Your task to perform on an android device: See recent photos Image 0: 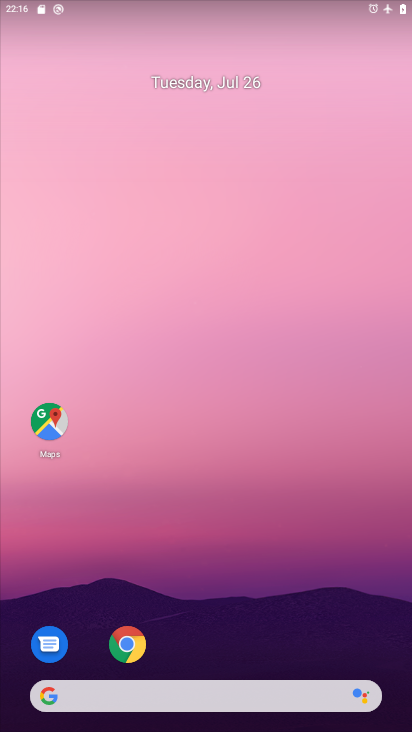
Step 0: drag from (180, 654) to (178, 242)
Your task to perform on an android device: See recent photos Image 1: 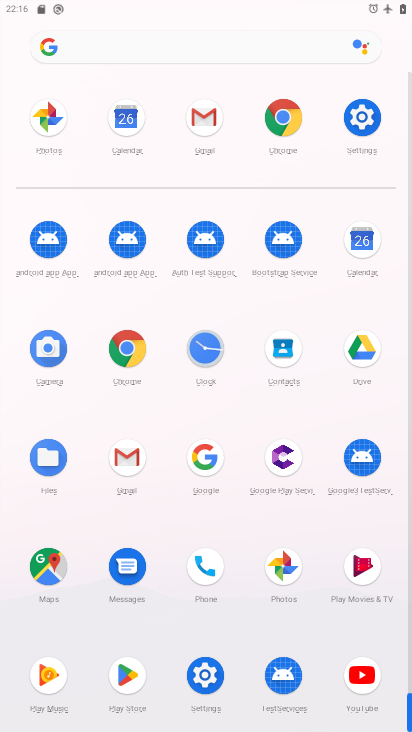
Step 1: click (290, 562)
Your task to perform on an android device: See recent photos Image 2: 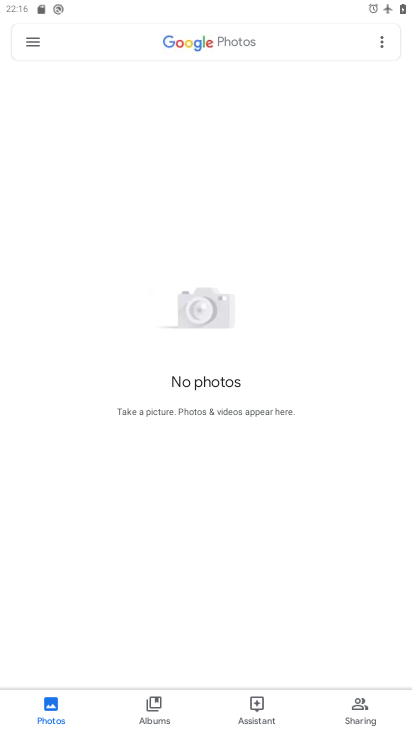
Step 2: click (167, 695)
Your task to perform on an android device: See recent photos Image 3: 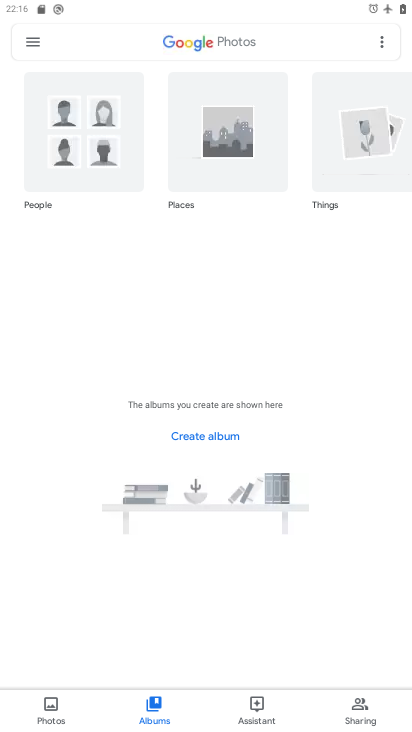
Step 3: click (63, 700)
Your task to perform on an android device: See recent photos Image 4: 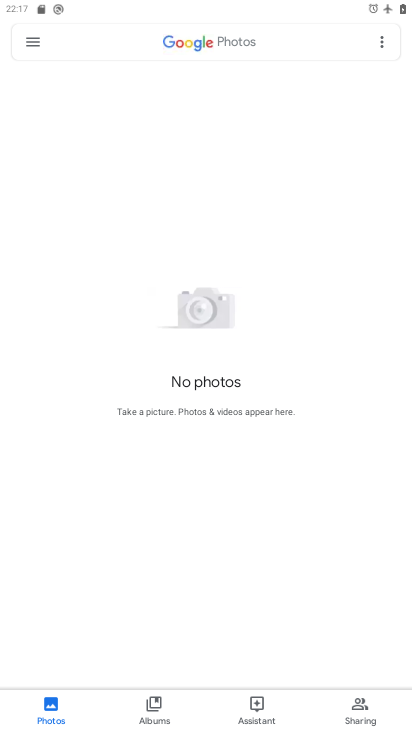
Step 4: task complete